Your task to perform on an android device: Open the stopwatch Image 0: 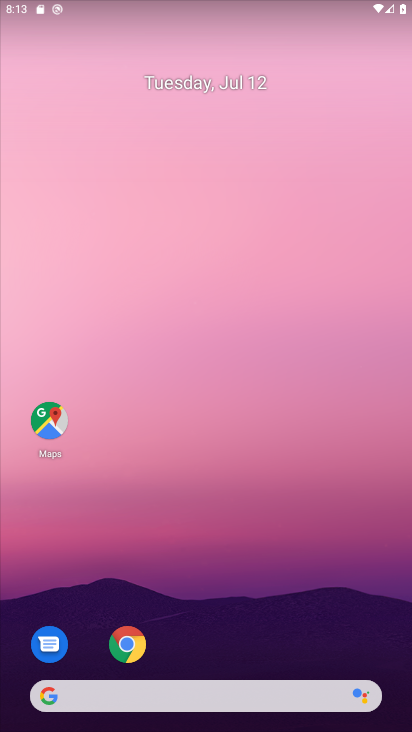
Step 0: drag from (202, 649) to (225, 189)
Your task to perform on an android device: Open the stopwatch Image 1: 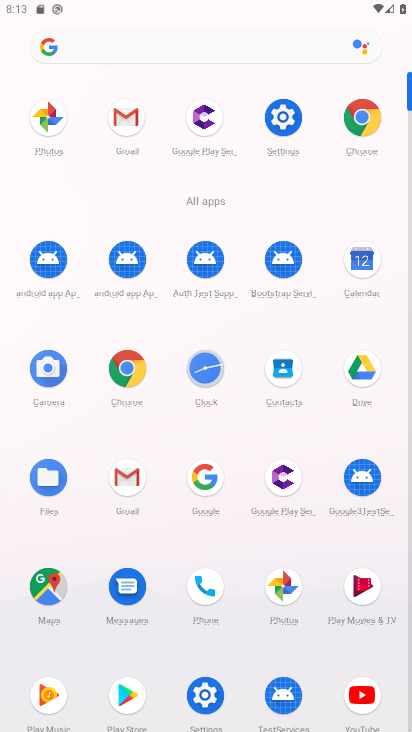
Step 1: click (198, 379)
Your task to perform on an android device: Open the stopwatch Image 2: 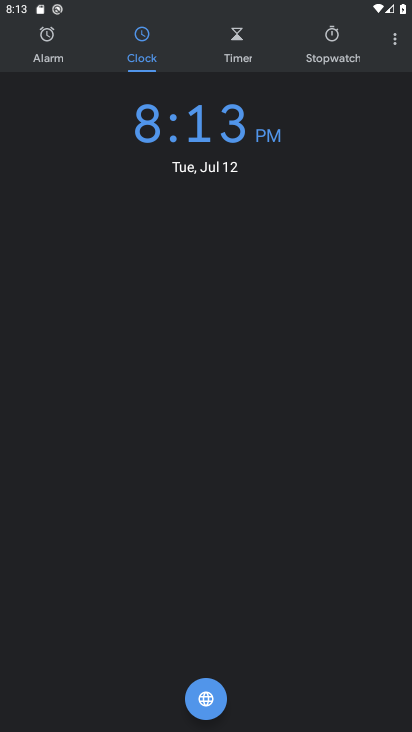
Step 2: click (336, 41)
Your task to perform on an android device: Open the stopwatch Image 3: 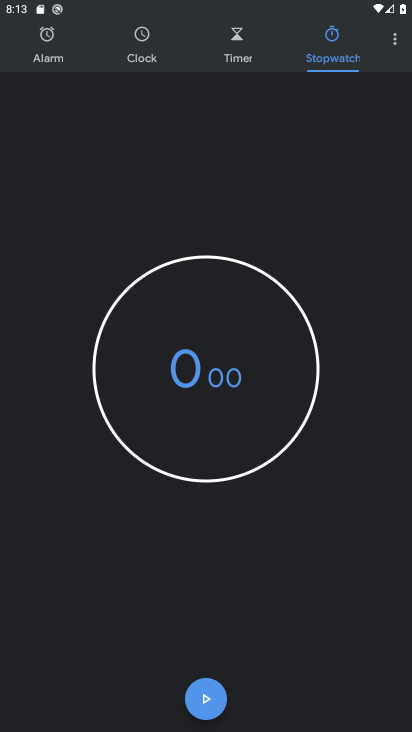
Step 3: task complete